Your task to perform on an android device: refresh tabs in the chrome app Image 0: 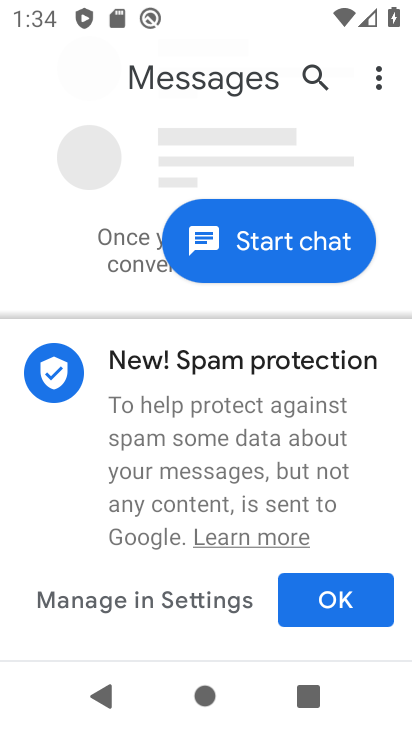
Step 0: press back button
Your task to perform on an android device: refresh tabs in the chrome app Image 1: 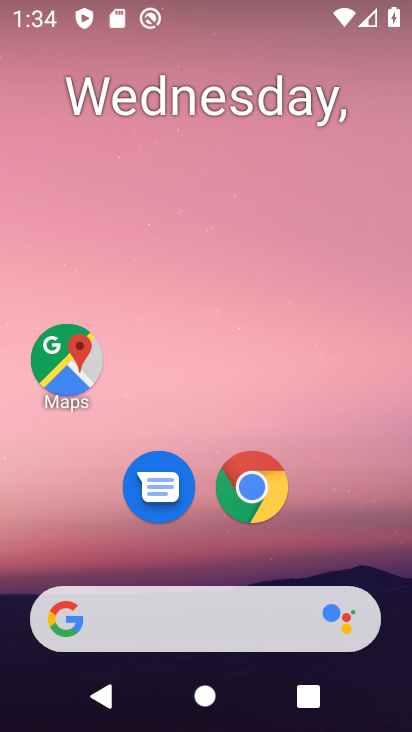
Step 1: click (279, 485)
Your task to perform on an android device: refresh tabs in the chrome app Image 2: 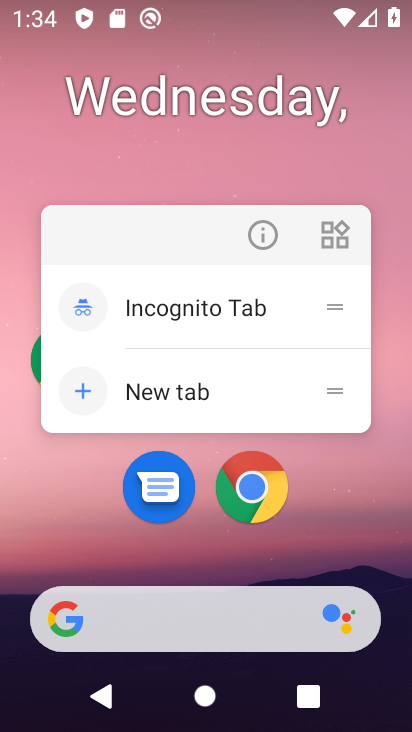
Step 2: click (251, 496)
Your task to perform on an android device: refresh tabs in the chrome app Image 3: 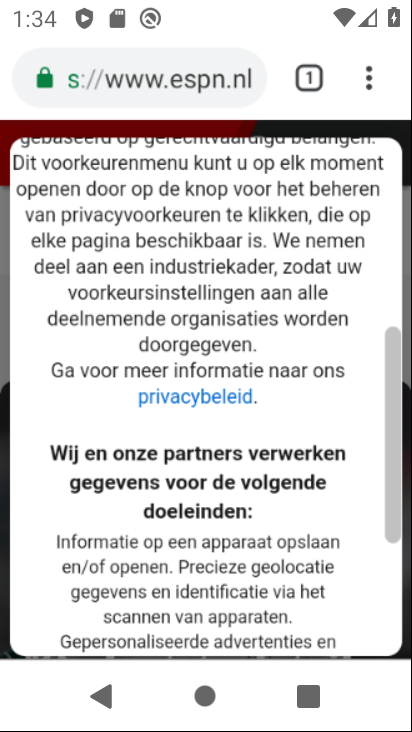
Step 3: click (370, 74)
Your task to perform on an android device: refresh tabs in the chrome app Image 4: 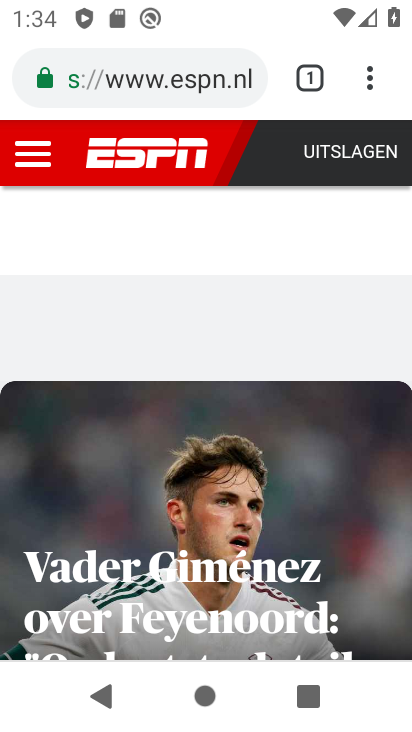
Step 4: task complete